Your task to perform on an android device: What's the weather today? Image 0: 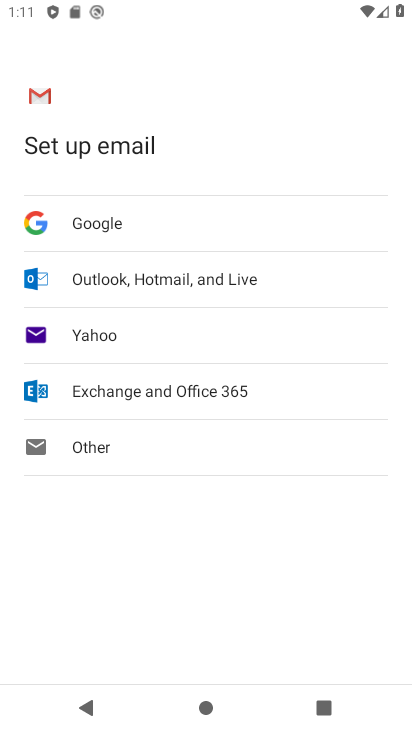
Step 0: press home button
Your task to perform on an android device: What's the weather today? Image 1: 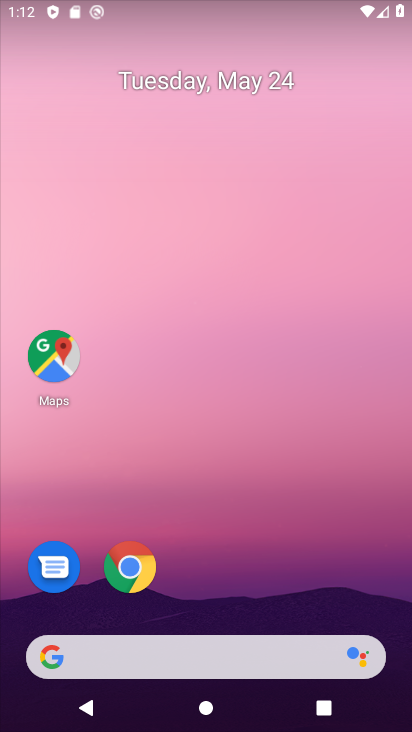
Step 1: click (220, 657)
Your task to perform on an android device: What's the weather today? Image 2: 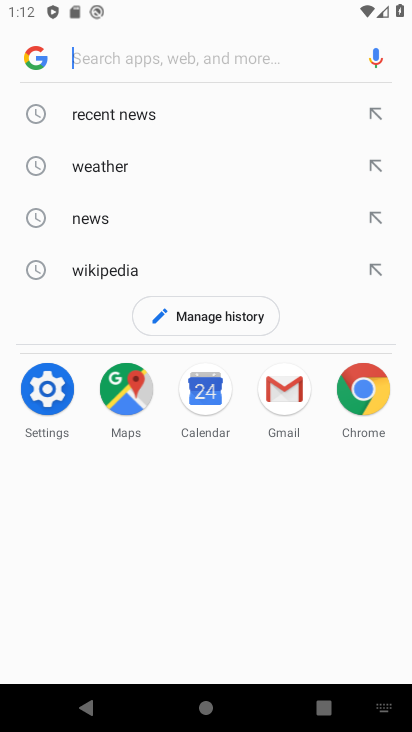
Step 2: click (116, 165)
Your task to perform on an android device: What's the weather today? Image 3: 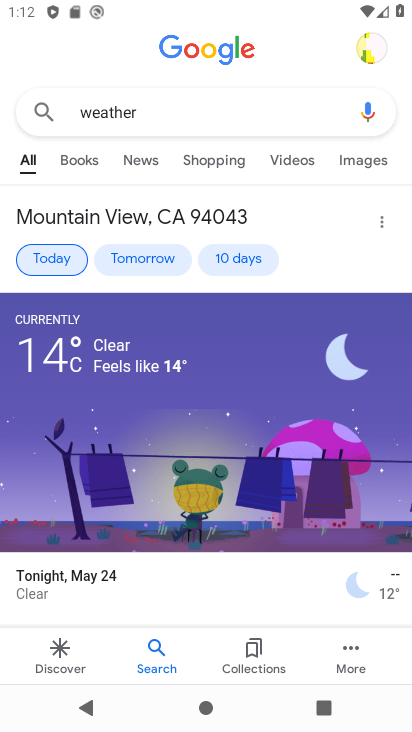
Step 3: task complete